Your task to perform on an android device: change notification settings in the gmail app Image 0: 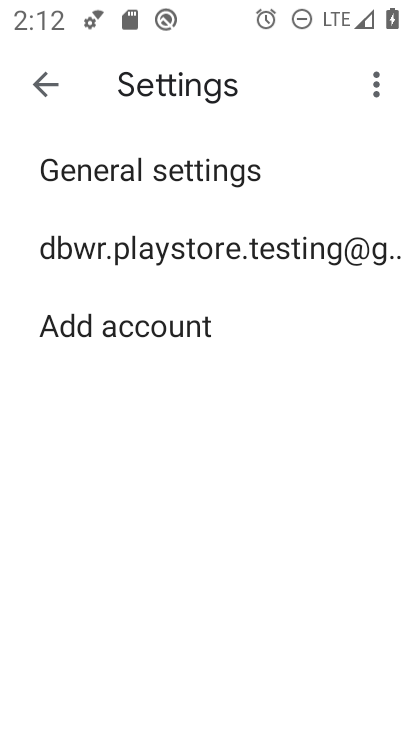
Step 0: press home button
Your task to perform on an android device: change notification settings in the gmail app Image 1: 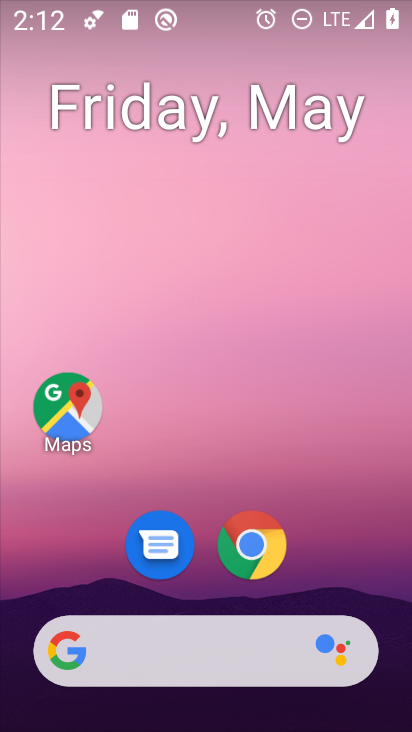
Step 1: drag from (315, 424) to (300, 223)
Your task to perform on an android device: change notification settings in the gmail app Image 2: 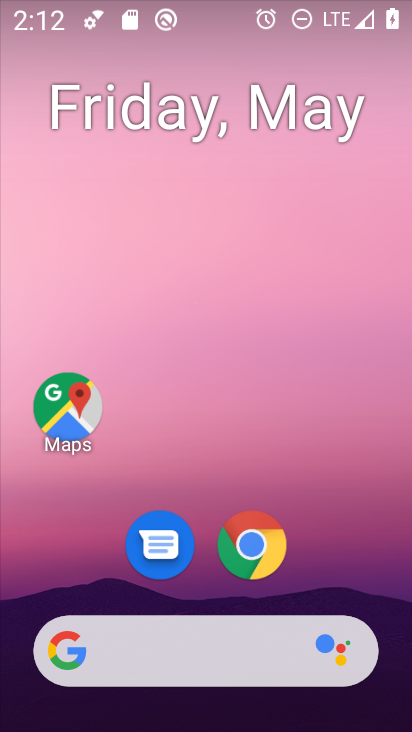
Step 2: drag from (207, 597) to (221, 259)
Your task to perform on an android device: change notification settings in the gmail app Image 3: 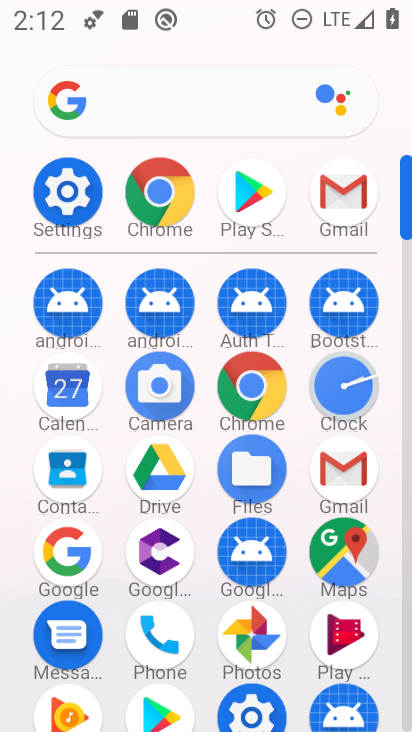
Step 3: click (351, 477)
Your task to perform on an android device: change notification settings in the gmail app Image 4: 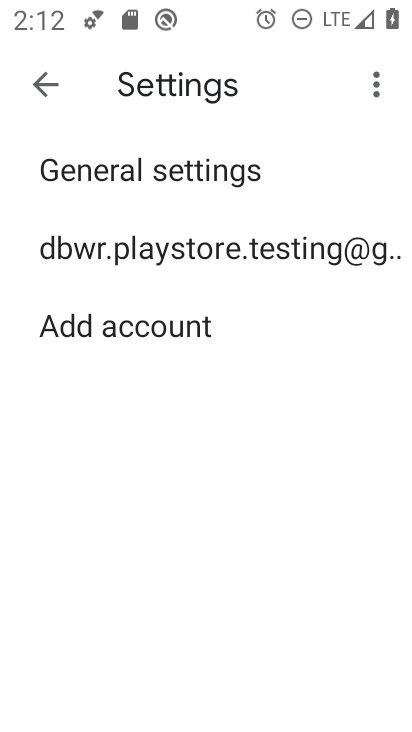
Step 4: click (48, 86)
Your task to perform on an android device: change notification settings in the gmail app Image 5: 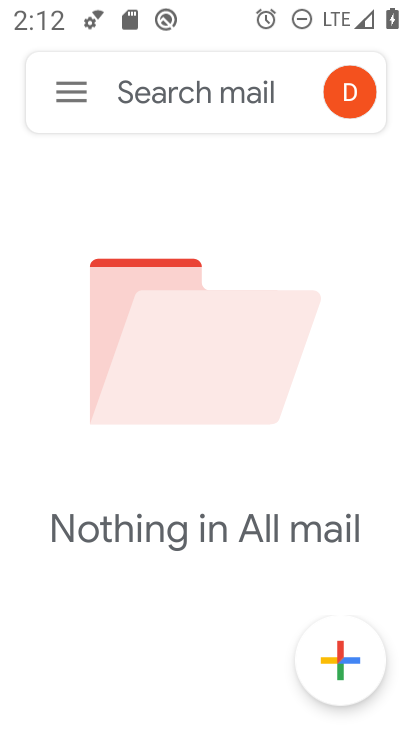
Step 5: click (70, 88)
Your task to perform on an android device: change notification settings in the gmail app Image 6: 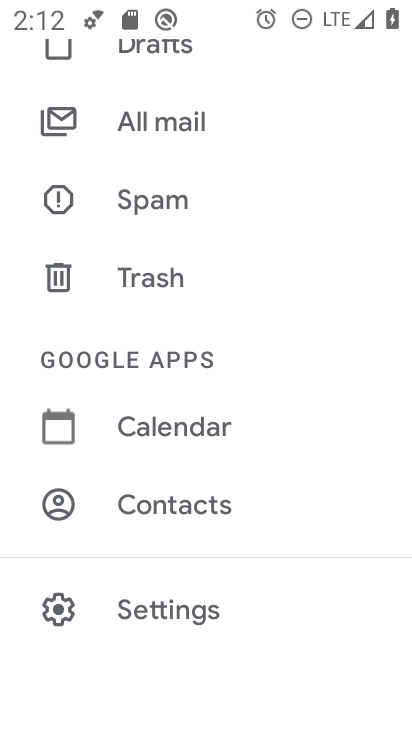
Step 6: click (175, 599)
Your task to perform on an android device: change notification settings in the gmail app Image 7: 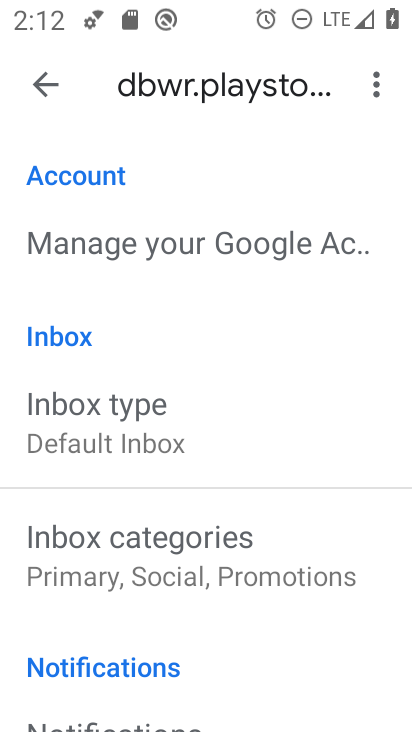
Step 7: drag from (176, 698) to (171, 373)
Your task to perform on an android device: change notification settings in the gmail app Image 8: 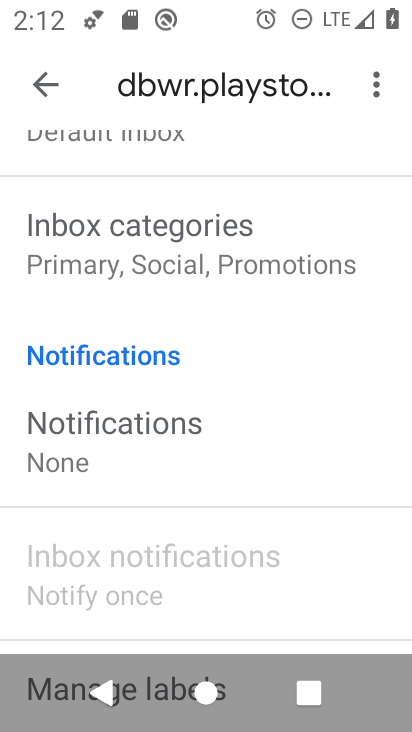
Step 8: click (109, 435)
Your task to perform on an android device: change notification settings in the gmail app Image 9: 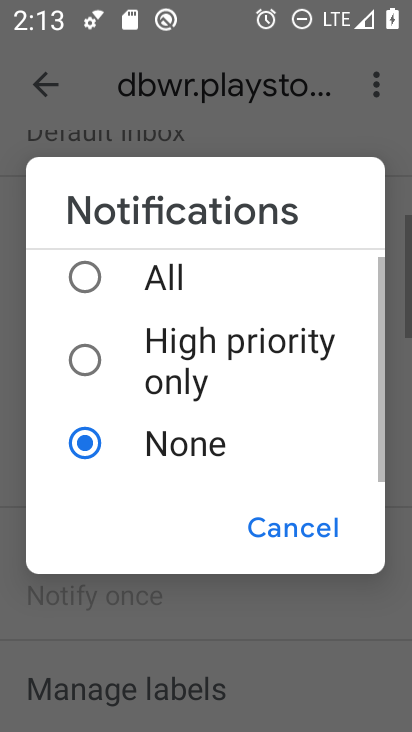
Step 9: click (116, 263)
Your task to perform on an android device: change notification settings in the gmail app Image 10: 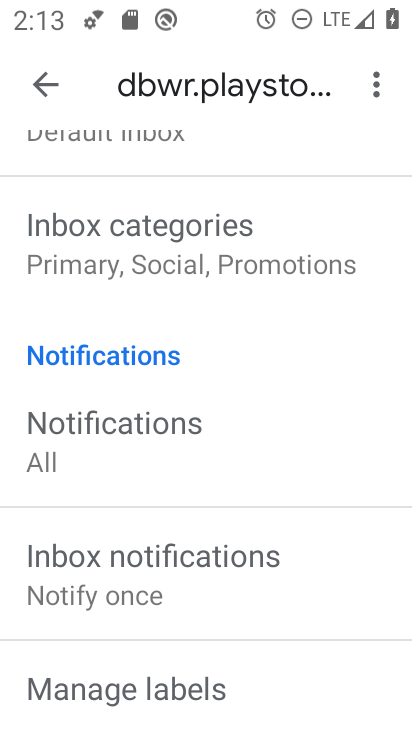
Step 10: task complete